Your task to perform on an android device: What's the weather going to be tomorrow? Image 0: 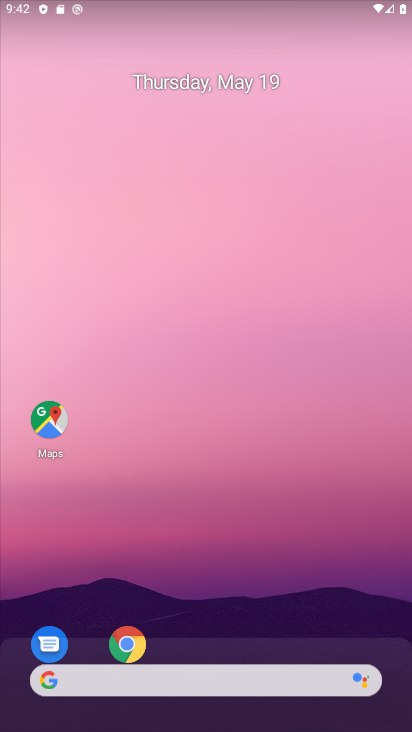
Step 0: drag from (92, 362) to (400, 448)
Your task to perform on an android device: What's the weather going to be tomorrow? Image 1: 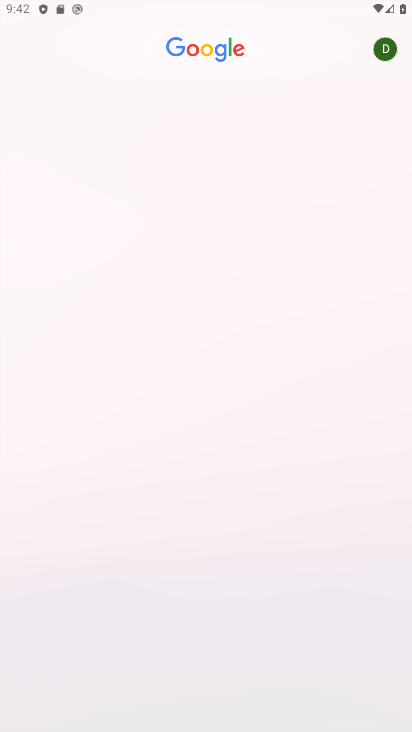
Step 1: drag from (12, 275) to (383, 297)
Your task to perform on an android device: What's the weather going to be tomorrow? Image 2: 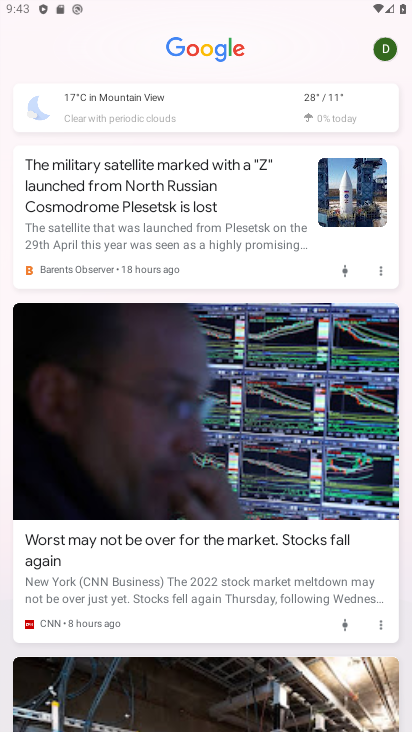
Step 2: click (100, 108)
Your task to perform on an android device: What's the weather going to be tomorrow? Image 3: 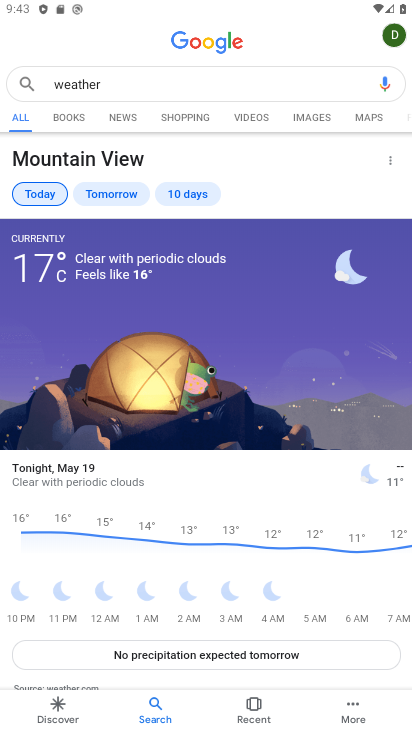
Step 3: drag from (152, 577) to (170, 144)
Your task to perform on an android device: What's the weather going to be tomorrow? Image 4: 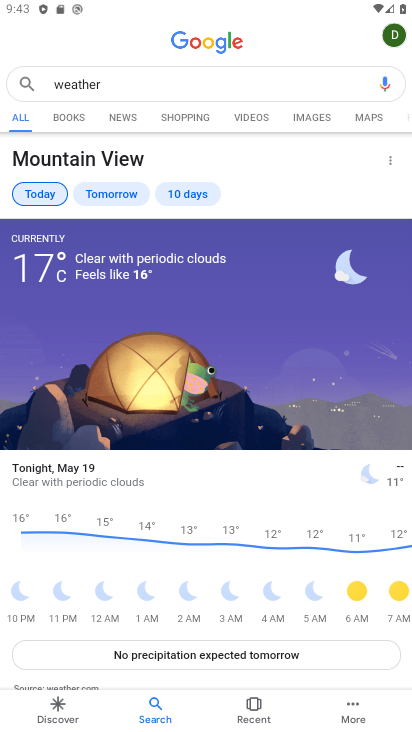
Step 4: click (122, 191)
Your task to perform on an android device: What's the weather going to be tomorrow? Image 5: 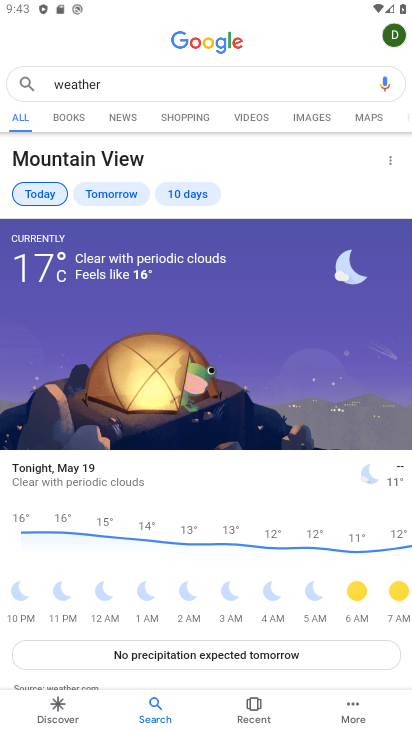
Step 5: click (123, 190)
Your task to perform on an android device: What's the weather going to be tomorrow? Image 6: 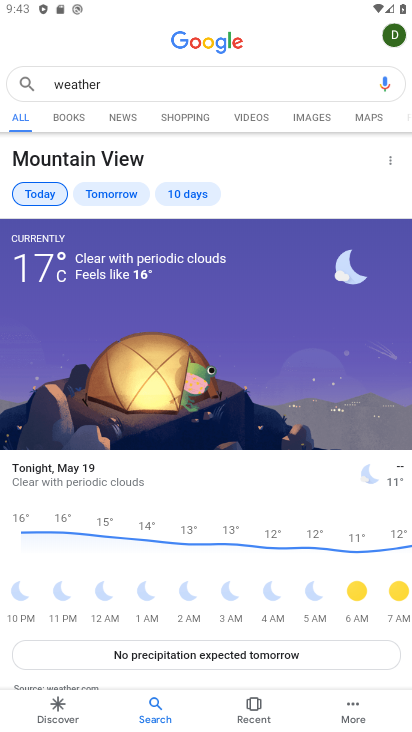
Step 6: click (123, 190)
Your task to perform on an android device: What's the weather going to be tomorrow? Image 7: 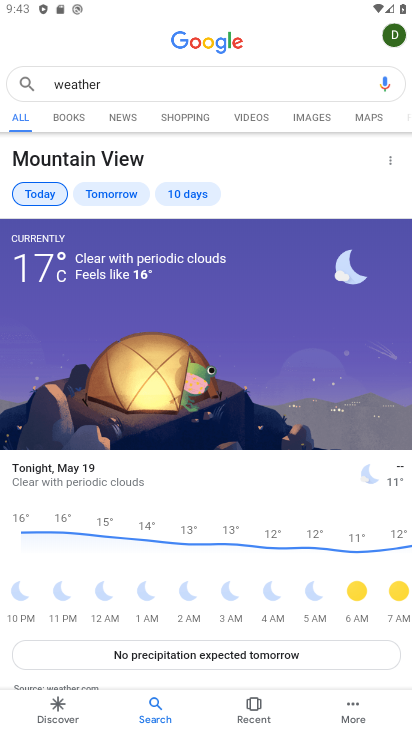
Step 7: click (116, 197)
Your task to perform on an android device: What's the weather going to be tomorrow? Image 8: 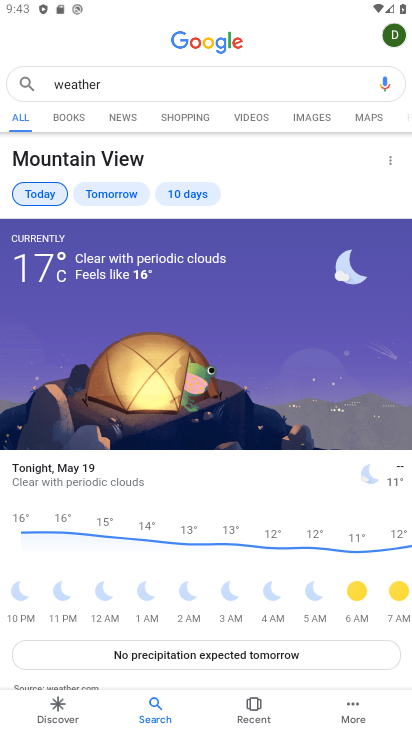
Step 8: press back button
Your task to perform on an android device: What's the weather going to be tomorrow? Image 9: 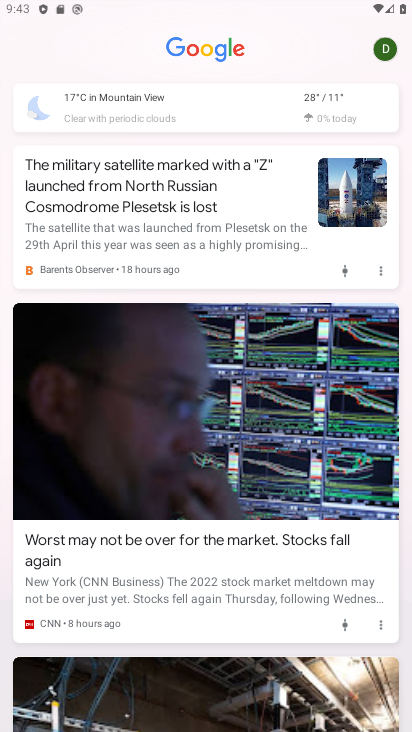
Step 9: press home button
Your task to perform on an android device: What's the weather going to be tomorrow? Image 10: 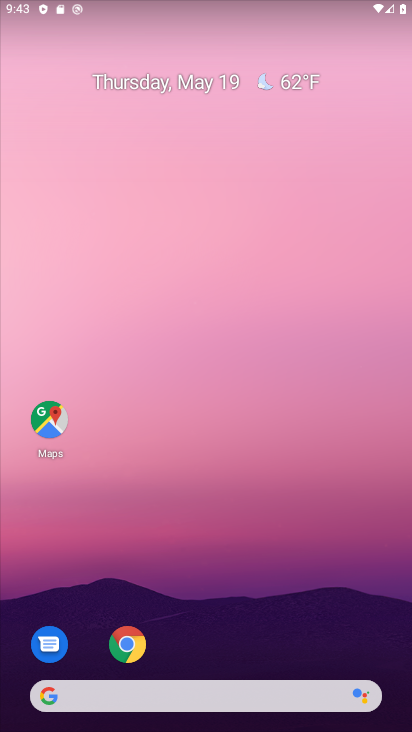
Step 10: drag from (0, 249) to (363, 666)
Your task to perform on an android device: What's the weather going to be tomorrow? Image 11: 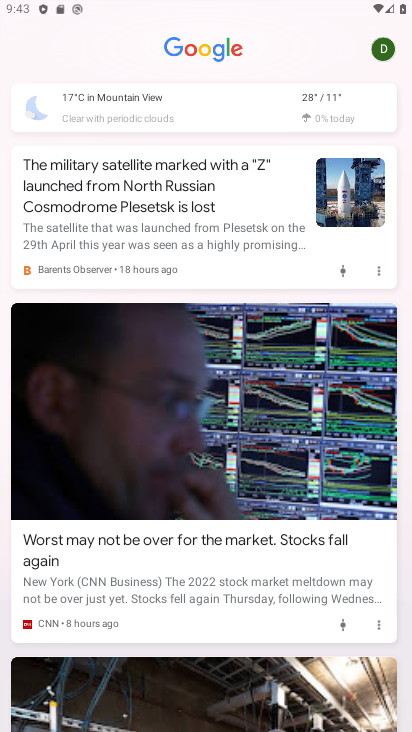
Step 11: drag from (349, 468) to (373, 246)
Your task to perform on an android device: What's the weather going to be tomorrow? Image 12: 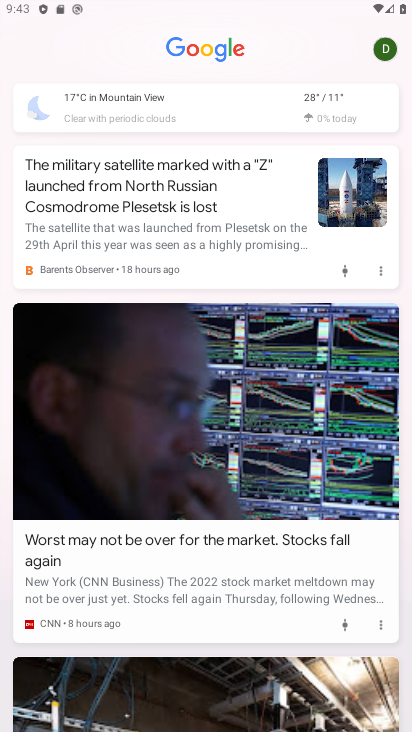
Step 12: click (194, 88)
Your task to perform on an android device: What's the weather going to be tomorrow? Image 13: 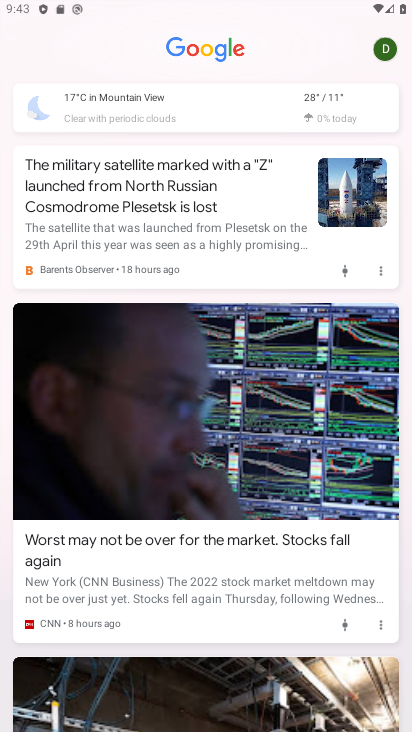
Step 13: click (194, 88)
Your task to perform on an android device: What's the weather going to be tomorrow? Image 14: 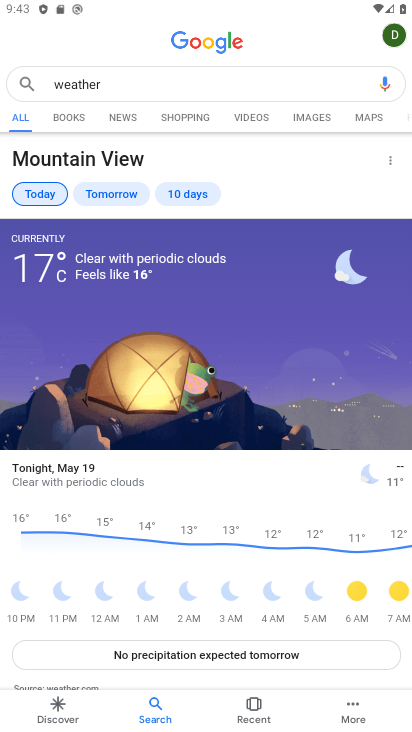
Step 14: click (107, 205)
Your task to perform on an android device: What's the weather going to be tomorrow? Image 15: 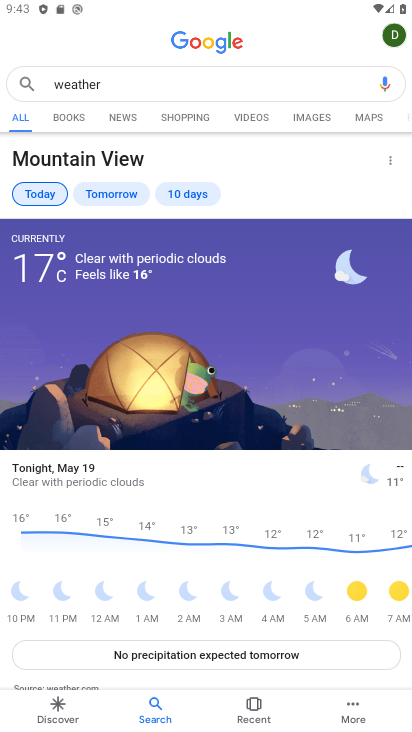
Step 15: click (107, 195)
Your task to perform on an android device: What's the weather going to be tomorrow? Image 16: 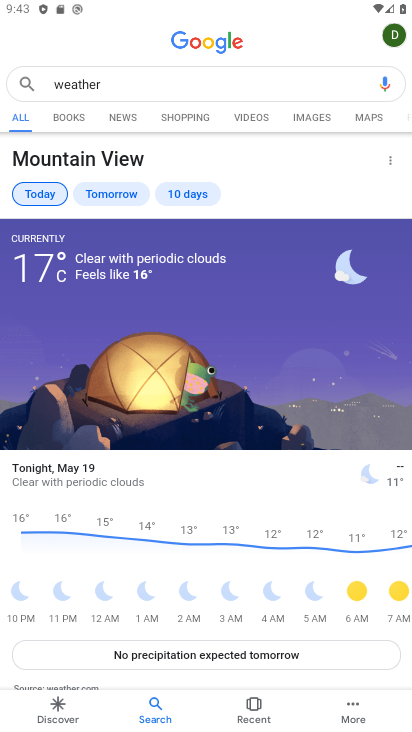
Step 16: click (107, 195)
Your task to perform on an android device: What's the weather going to be tomorrow? Image 17: 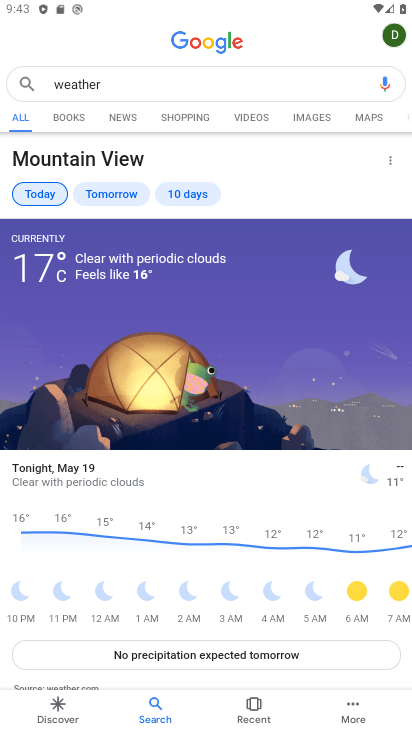
Step 17: click (108, 195)
Your task to perform on an android device: What's the weather going to be tomorrow? Image 18: 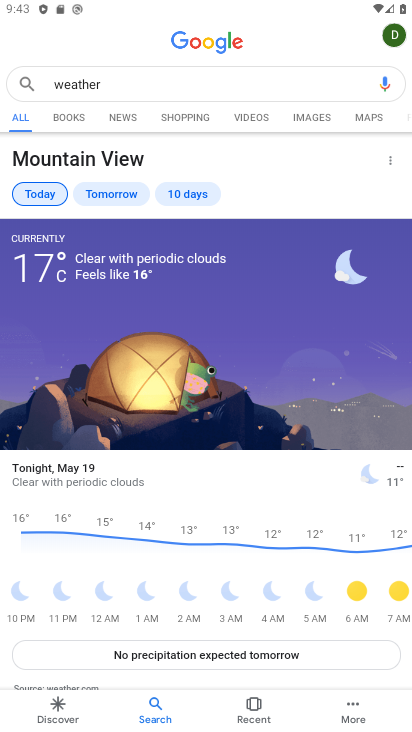
Step 18: drag from (230, 522) to (251, 124)
Your task to perform on an android device: What's the weather going to be tomorrow? Image 19: 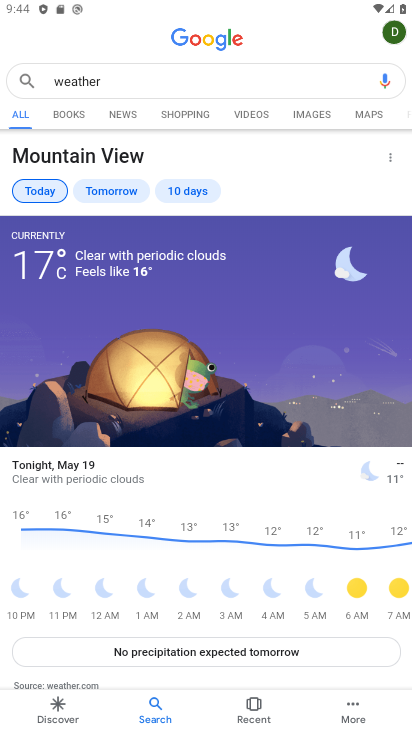
Step 19: drag from (197, 502) to (126, 155)
Your task to perform on an android device: What's the weather going to be tomorrow? Image 20: 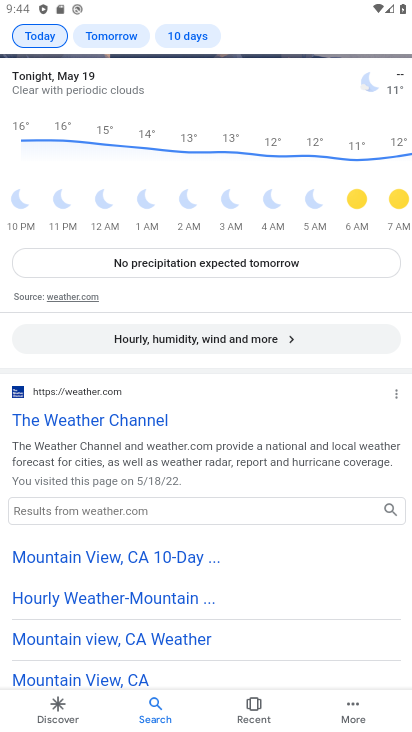
Step 20: drag from (146, 514) to (132, 89)
Your task to perform on an android device: What's the weather going to be tomorrow? Image 21: 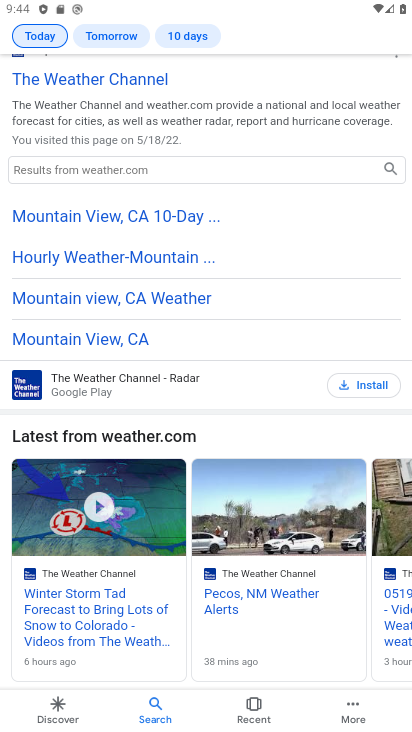
Step 21: drag from (183, 395) to (183, 0)
Your task to perform on an android device: What's the weather going to be tomorrow? Image 22: 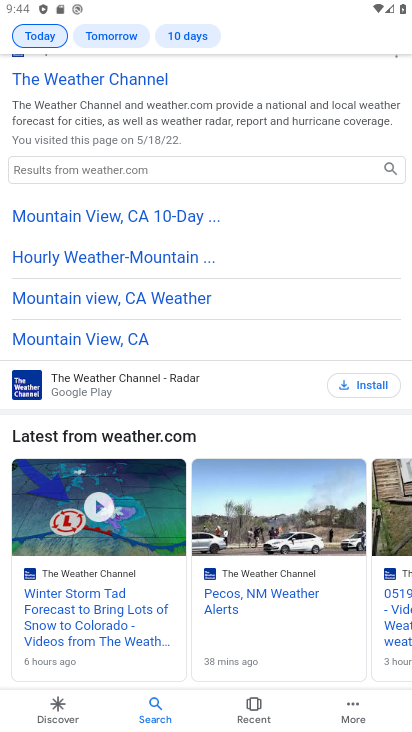
Step 22: drag from (255, 438) to (307, 57)
Your task to perform on an android device: What's the weather going to be tomorrow? Image 23: 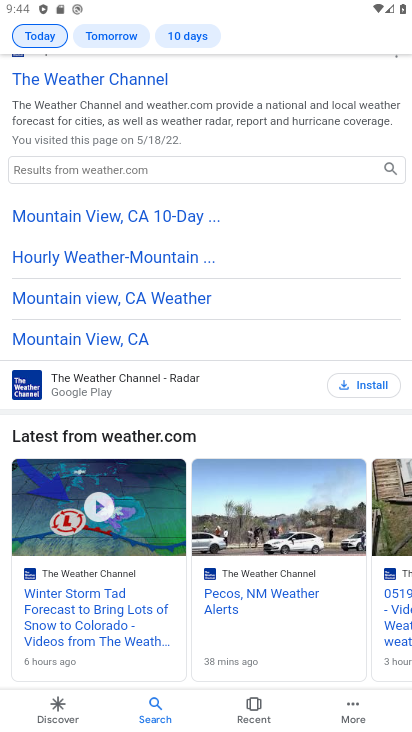
Step 23: drag from (308, 421) to (316, 38)
Your task to perform on an android device: What's the weather going to be tomorrow? Image 24: 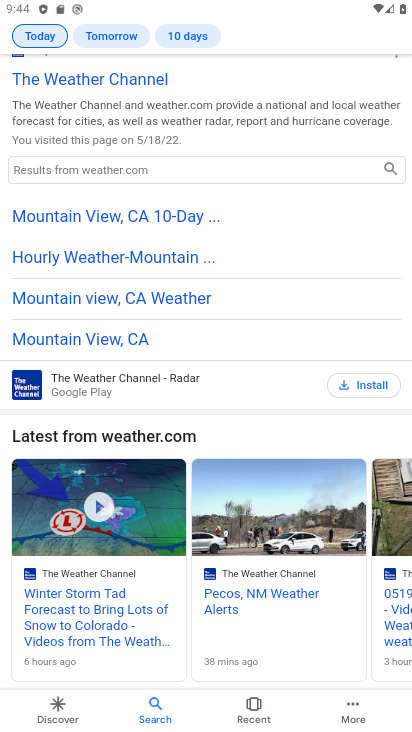
Step 24: drag from (241, 470) to (218, 111)
Your task to perform on an android device: What's the weather going to be tomorrow? Image 25: 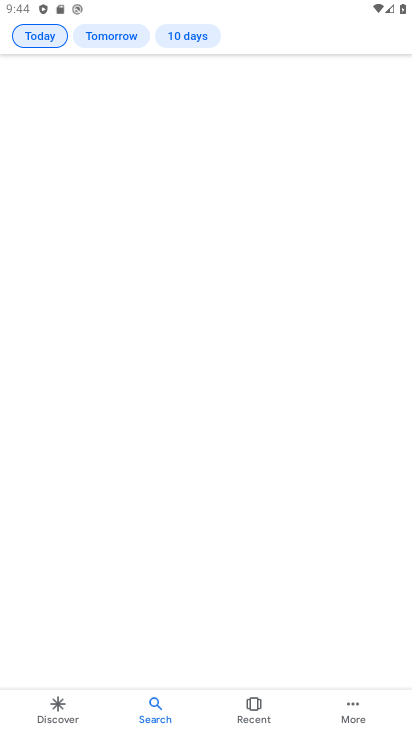
Step 25: drag from (168, 517) to (221, 25)
Your task to perform on an android device: What's the weather going to be tomorrow? Image 26: 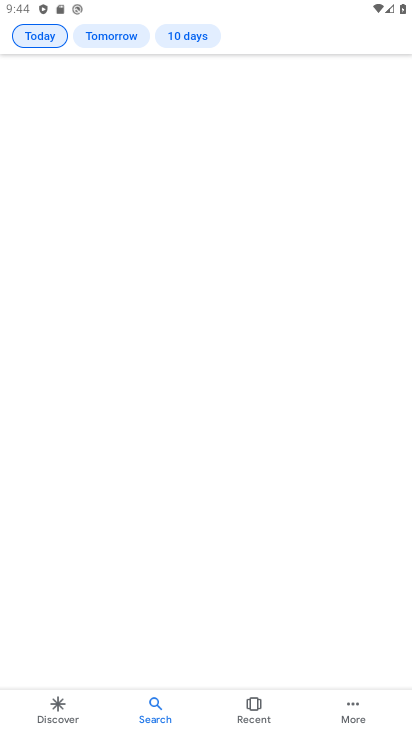
Step 26: drag from (200, 96) to (256, 533)
Your task to perform on an android device: What's the weather going to be tomorrow? Image 27: 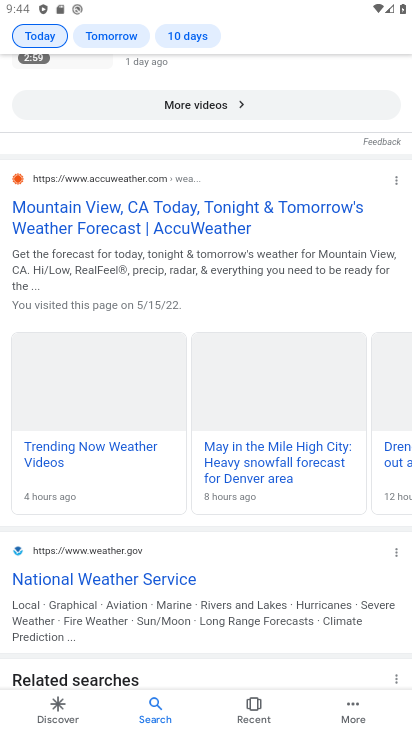
Step 27: drag from (181, 104) to (284, 670)
Your task to perform on an android device: What's the weather going to be tomorrow? Image 28: 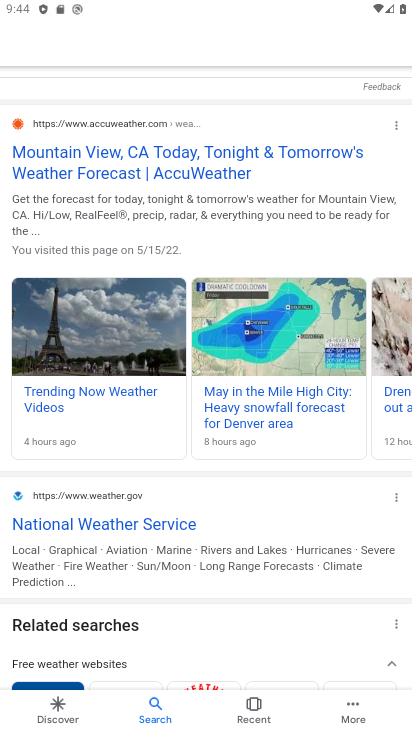
Step 28: drag from (209, 117) to (178, 637)
Your task to perform on an android device: What's the weather going to be tomorrow? Image 29: 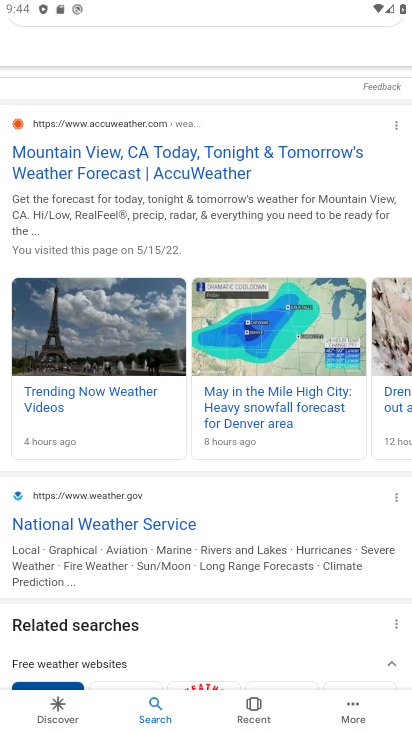
Step 29: drag from (118, 216) to (249, 650)
Your task to perform on an android device: What's the weather going to be tomorrow? Image 30: 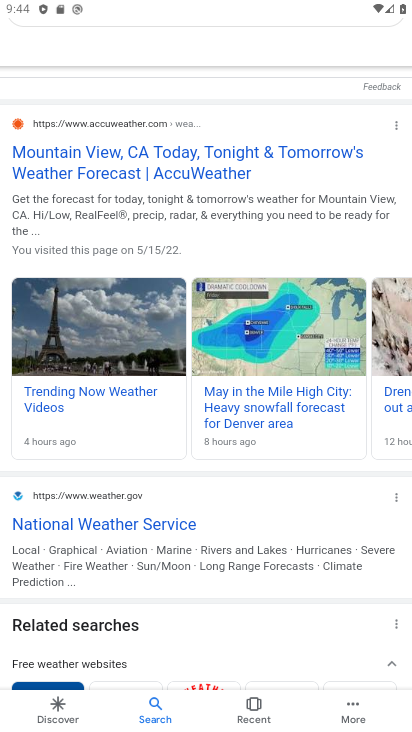
Step 30: click (232, 157)
Your task to perform on an android device: What's the weather going to be tomorrow? Image 31: 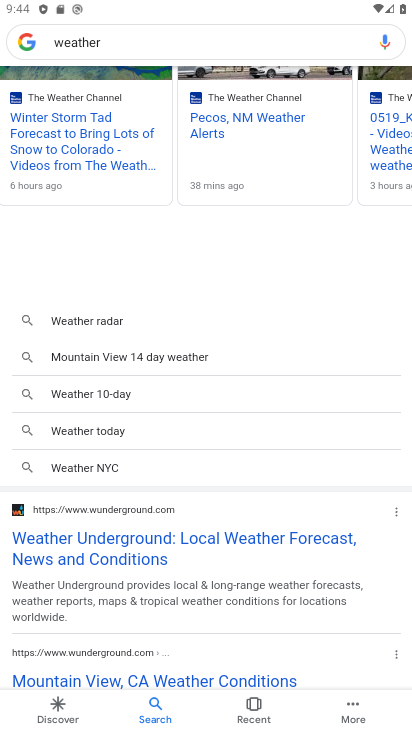
Step 31: task complete